Your task to perform on an android device: Search for razer naga on walmart, select the first entry, and add it to the cart. Image 0: 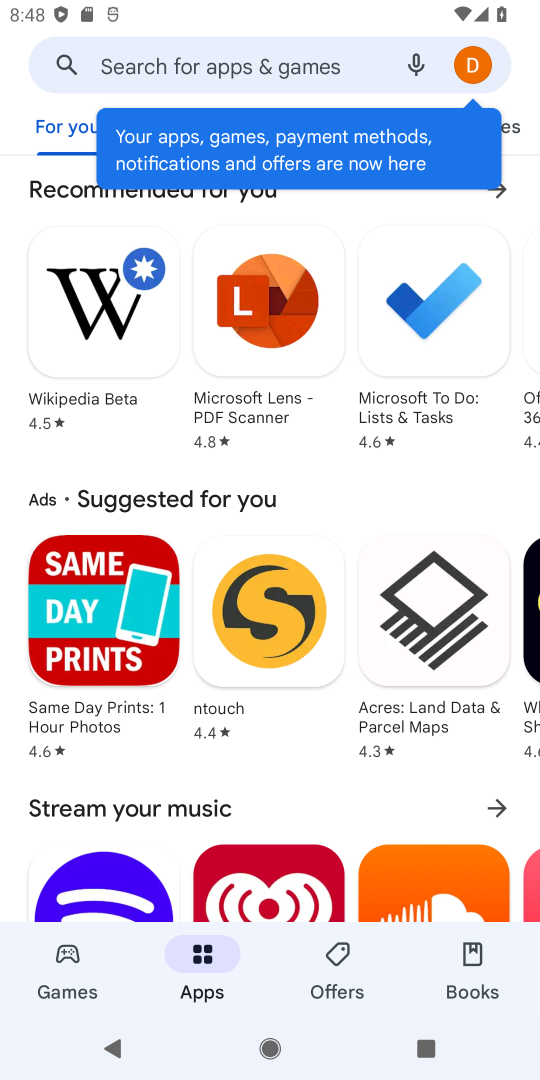
Step 0: press home button
Your task to perform on an android device: Search for razer naga on walmart, select the first entry, and add it to the cart. Image 1: 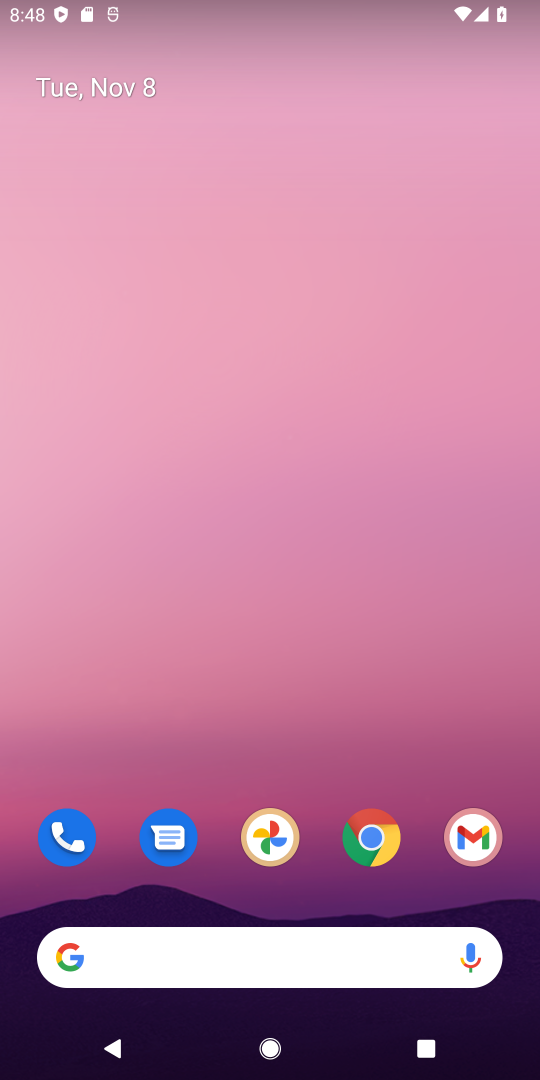
Step 1: click (381, 843)
Your task to perform on an android device: Search for razer naga on walmart, select the first entry, and add it to the cart. Image 2: 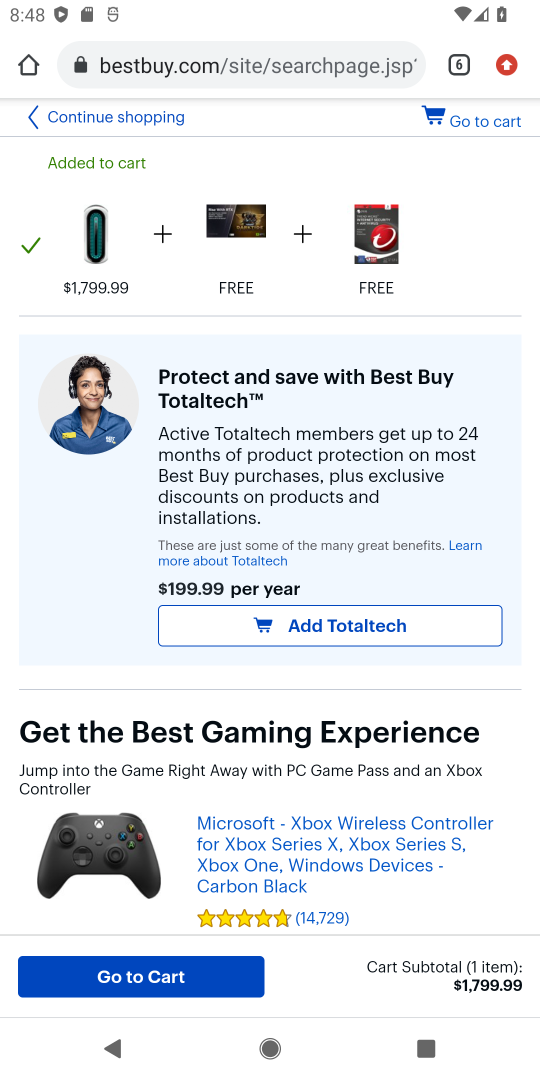
Step 2: click (455, 71)
Your task to perform on an android device: Search for razer naga on walmart, select the first entry, and add it to the cart. Image 3: 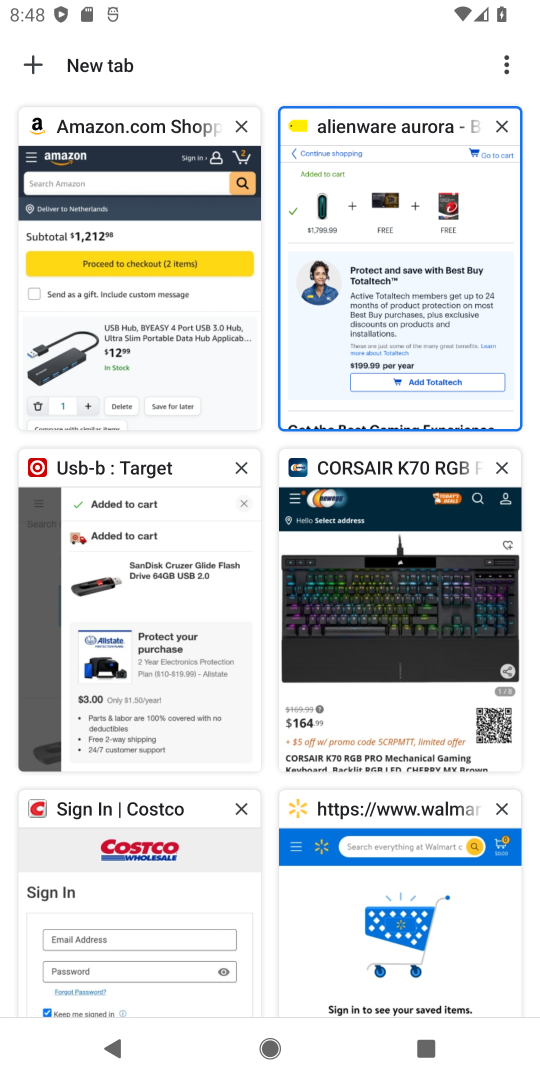
Step 3: click (349, 898)
Your task to perform on an android device: Search for razer naga on walmart, select the first entry, and add it to the cart. Image 4: 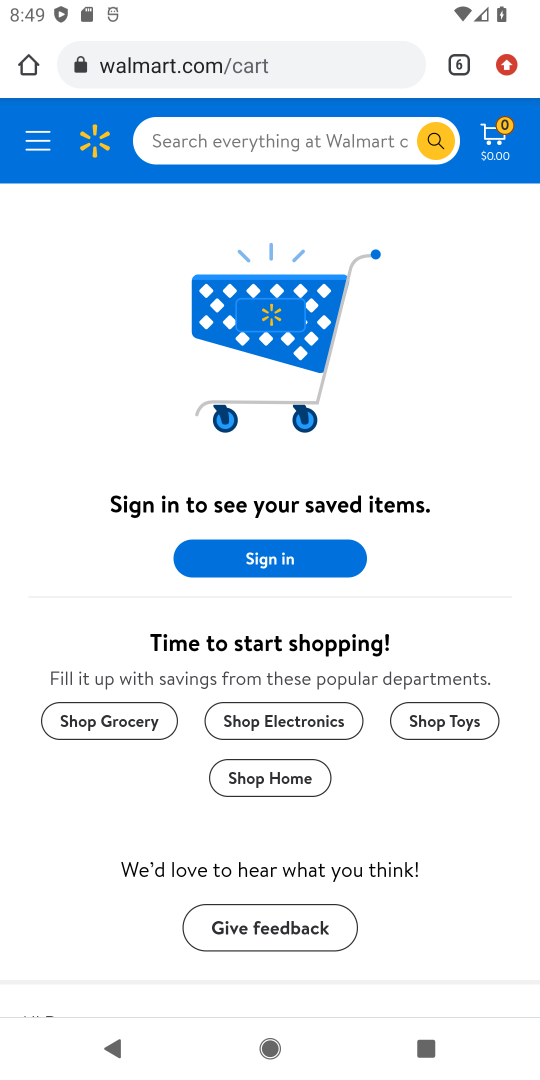
Step 4: click (207, 143)
Your task to perform on an android device: Search for razer naga on walmart, select the first entry, and add it to the cart. Image 5: 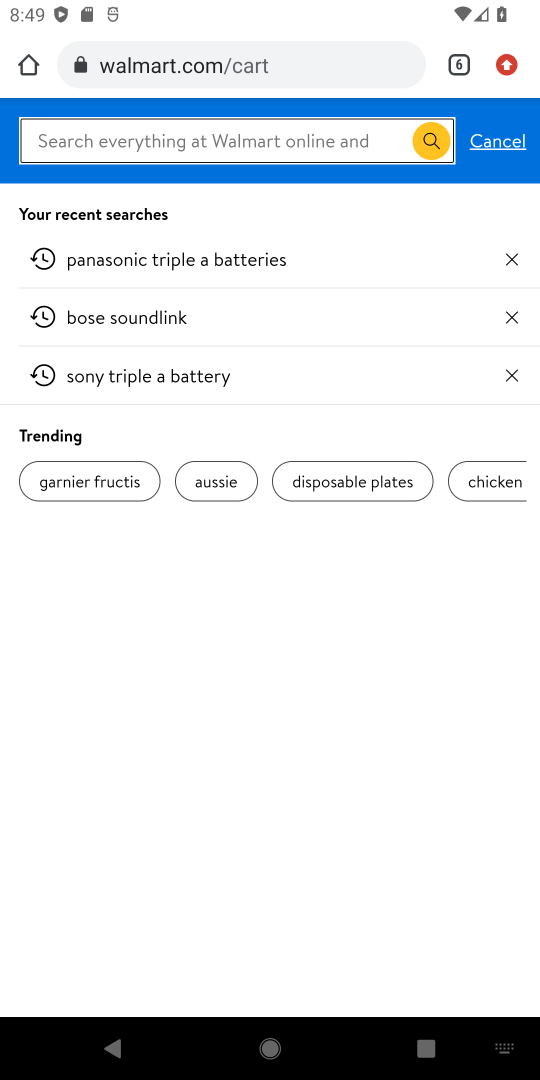
Step 5: type "razer naga"
Your task to perform on an android device: Search for razer naga on walmart, select the first entry, and add it to the cart. Image 6: 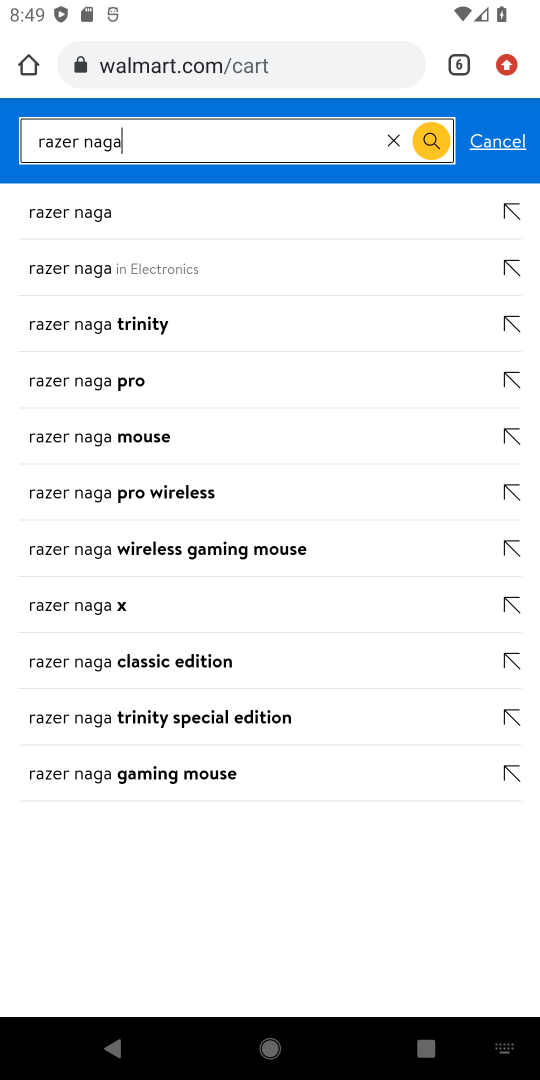
Step 6: click (111, 268)
Your task to perform on an android device: Search for razer naga on walmart, select the first entry, and add it to the cart. Image 7: 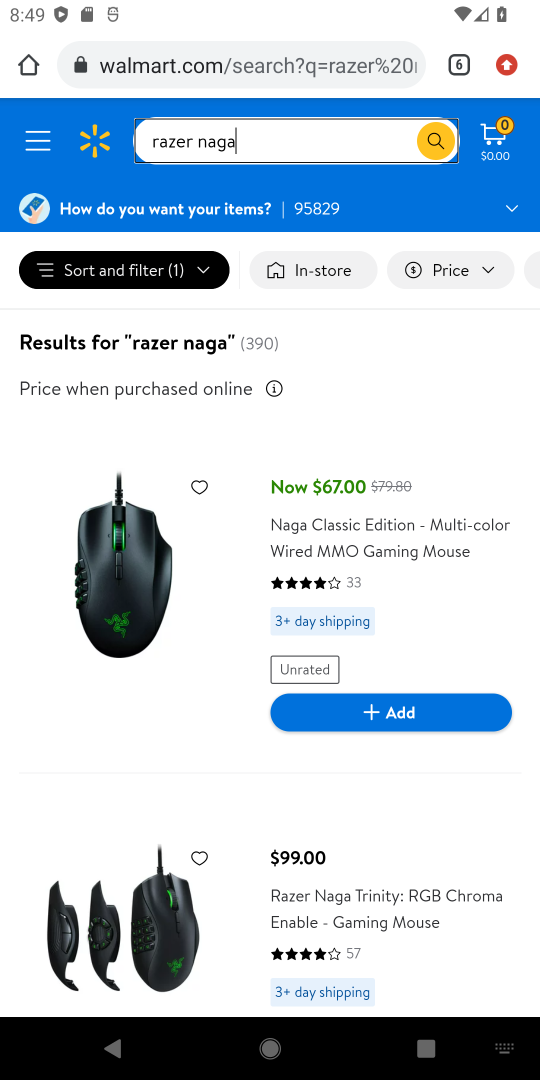
Step 7: drag from (368, 820) to (363, 473)
Your task to perform on an android device: Search for razer naga on walmart, select the first entry, and add it to the cart. Image 8: 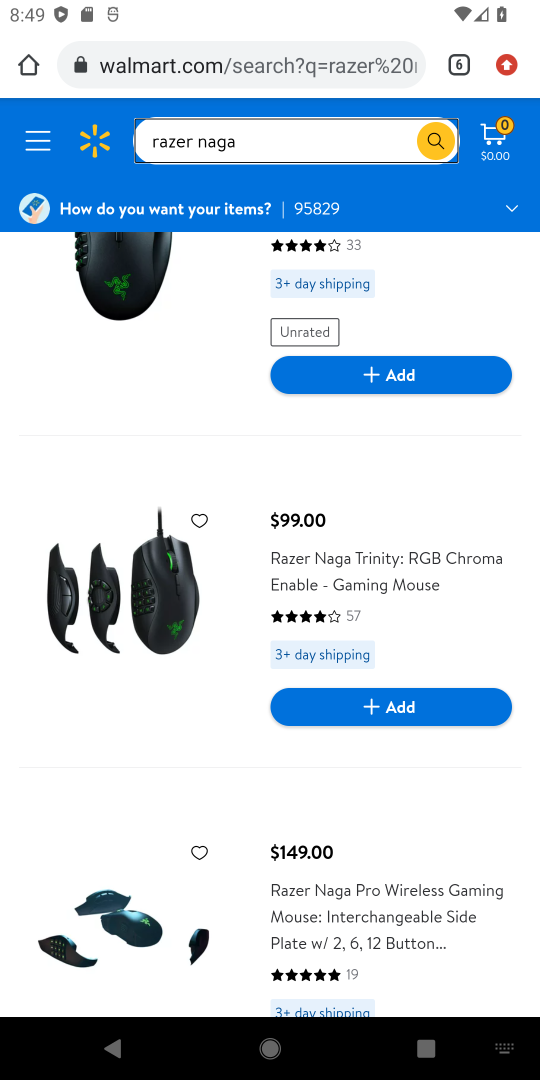
Step 8: click (404, 712)
Your task to perform on an android device: Search for razer naga on walmart, select the first entry, and add it to the cart. Image 9: 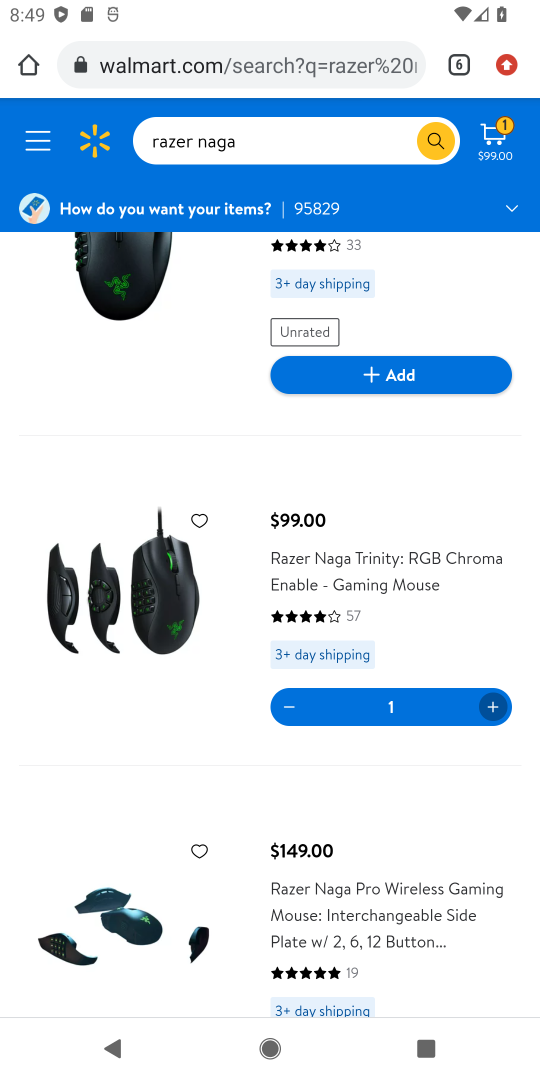
Step 9: task complete